Your task to perform on an android device: Show me the alarms in the clock app Image 0: 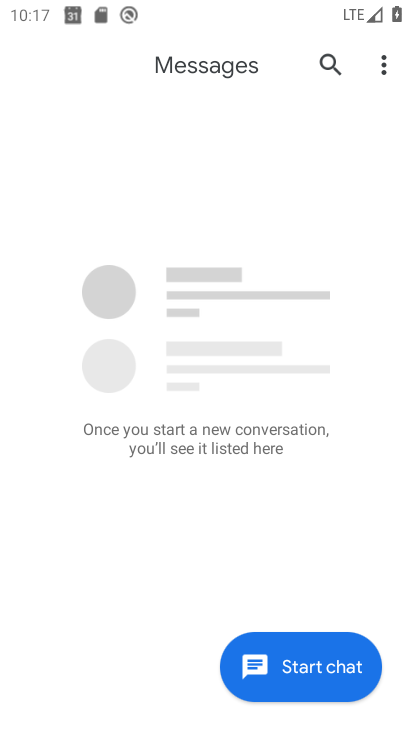
Step 0: press home button
Your task to perform on an android device: Show me the alarms in the clock app Image 1: 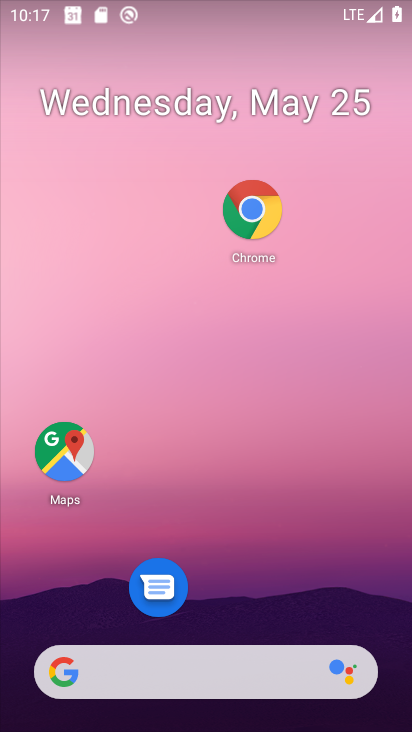
Step 1: drag from (242, 626) to (285, 222)
Your task to perform on an android device: Show me the alarms in the clock app Image 2: 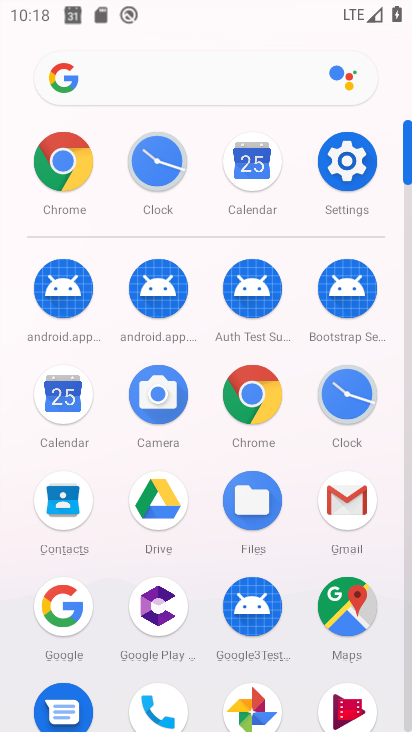
Step 2: click (355, 397)
Your task to perform on an android device: Show me the alarms in the clock app Image 3: 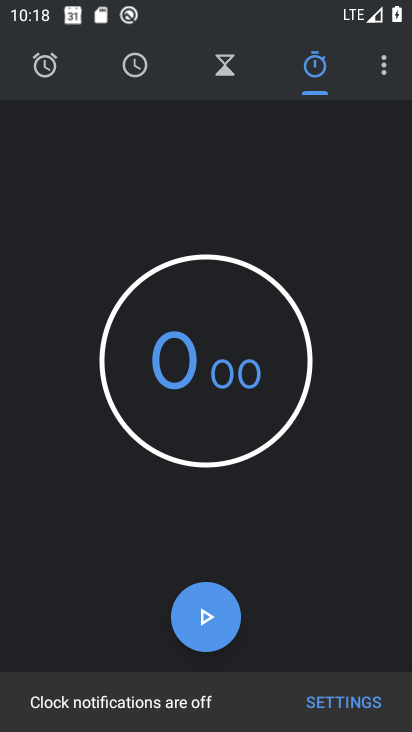
Step 3: click (59, 77)
Your task to perform on an android device: Show me the alarms in the clock app Image 4: 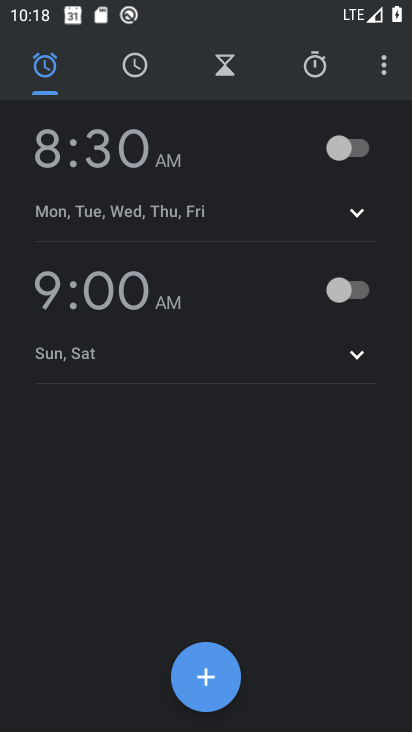
Step 4: task complete